Your task to perform on an android device: Go to internet settings Image 0: 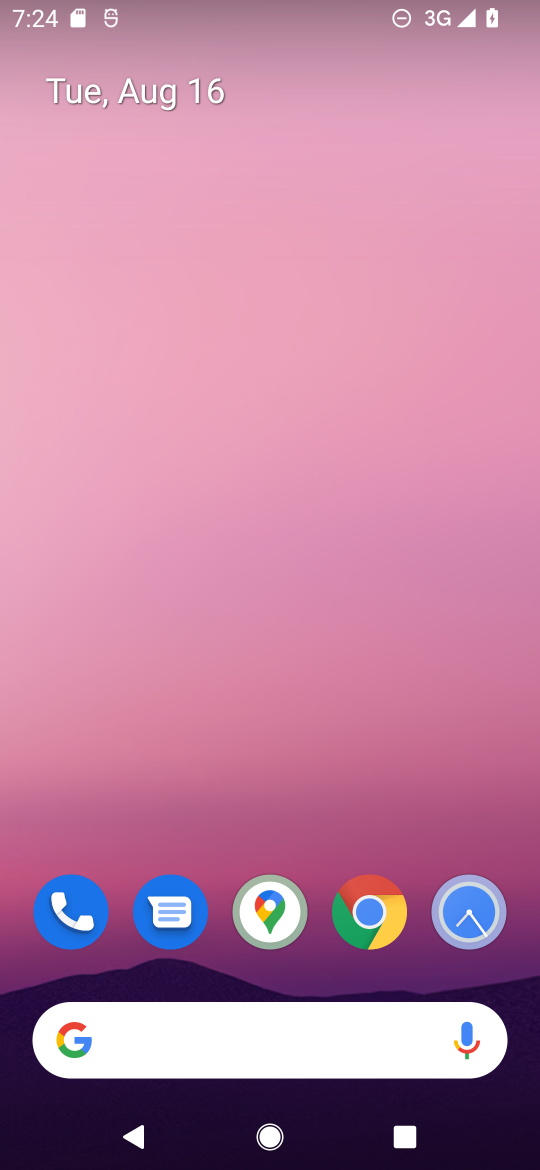
Step 0: drag from (422, 971) to (399, 251)
Your task to perform on an android device: Go to internet settings Image 1: 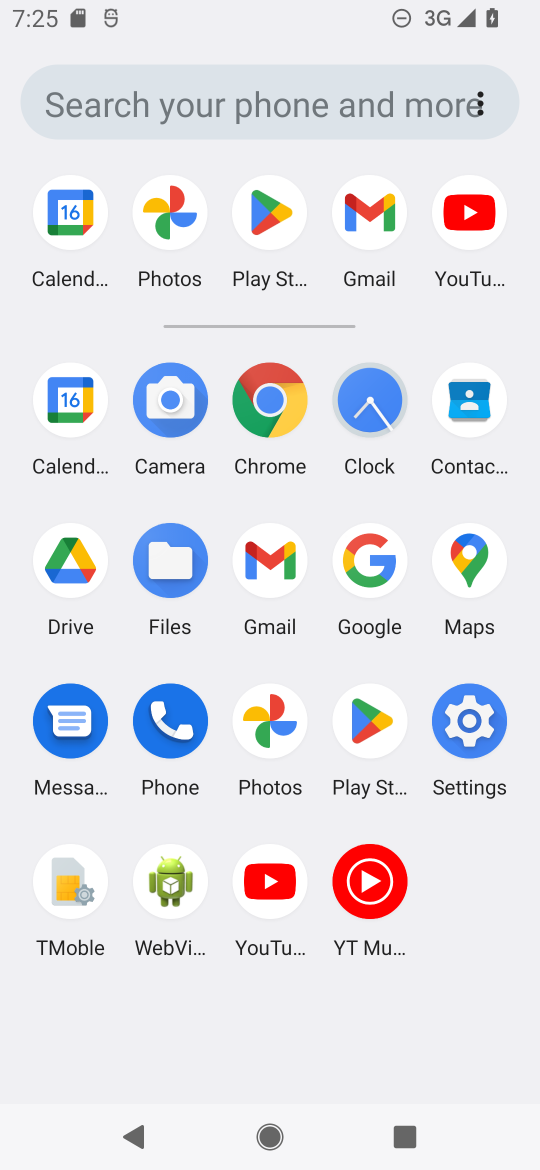
Step 1: click (465, 721)
Your task to perform on an android device: Go to internet settings Image 2: 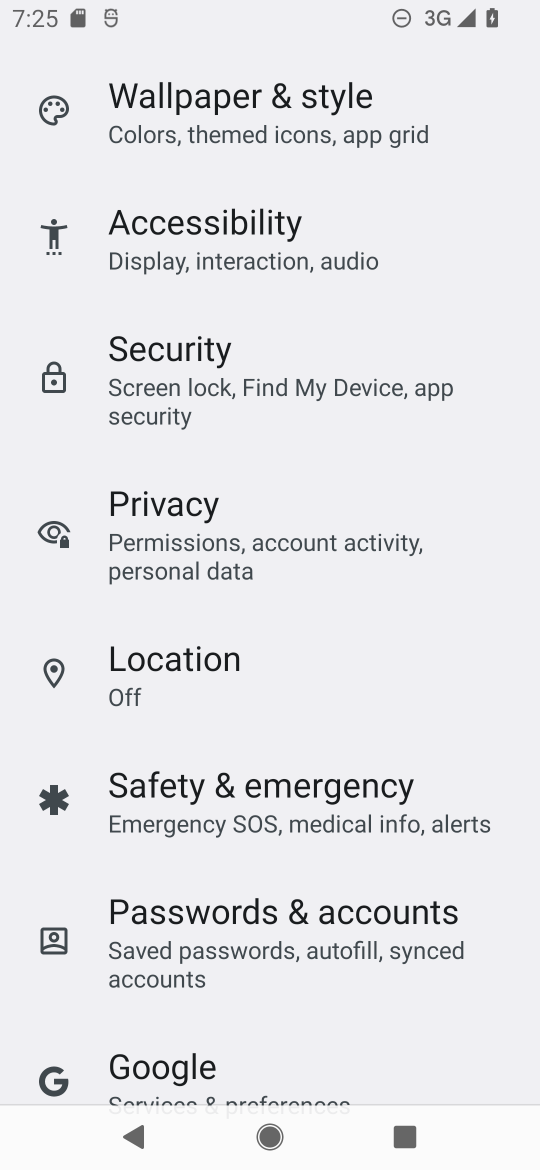
Step 2: drag from (393, 216) to (367, 819)
Your task to perform on an android device: Go to internet settings Image 3: 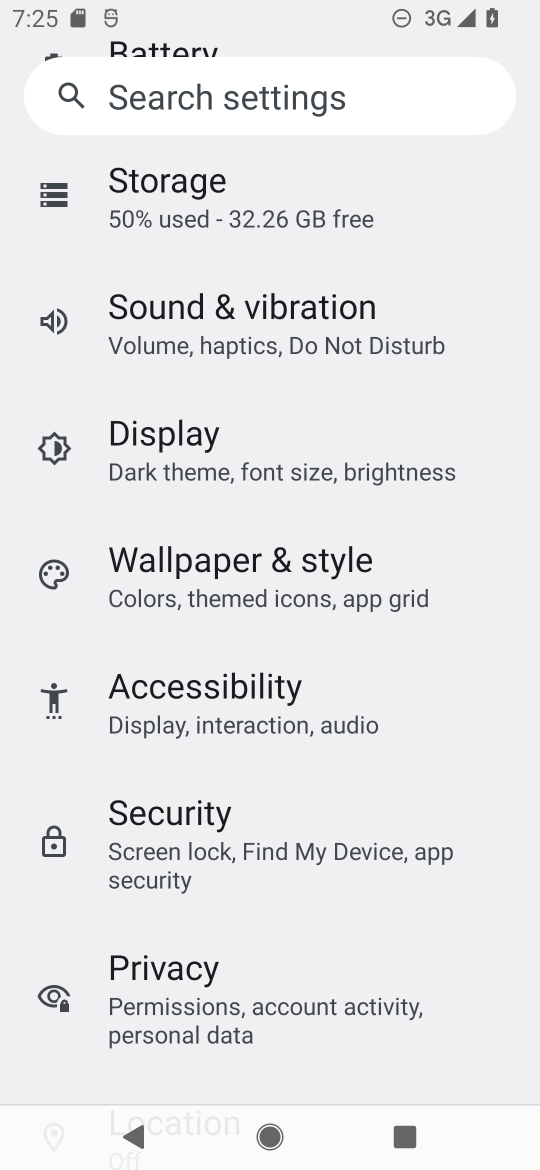
Step 3: drag from (428, 343) to (398, 879)
Your task to perform on an android device: Go to internet settings Image 4: 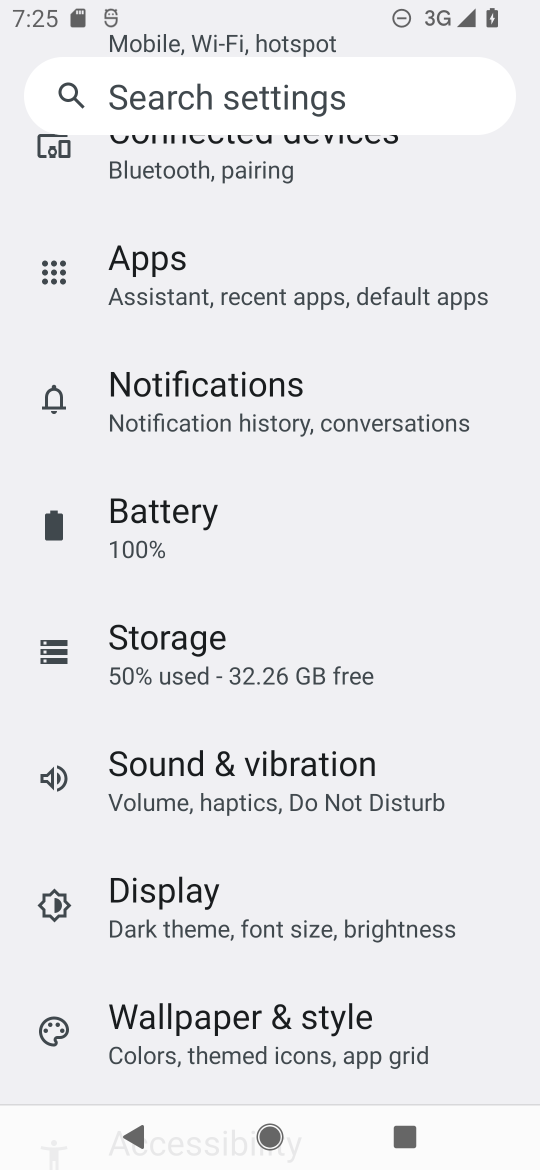
Step 4: drag from (440, 198) to (401, 767)
Your task to perform on an android device: Go to internet settings Image 5: 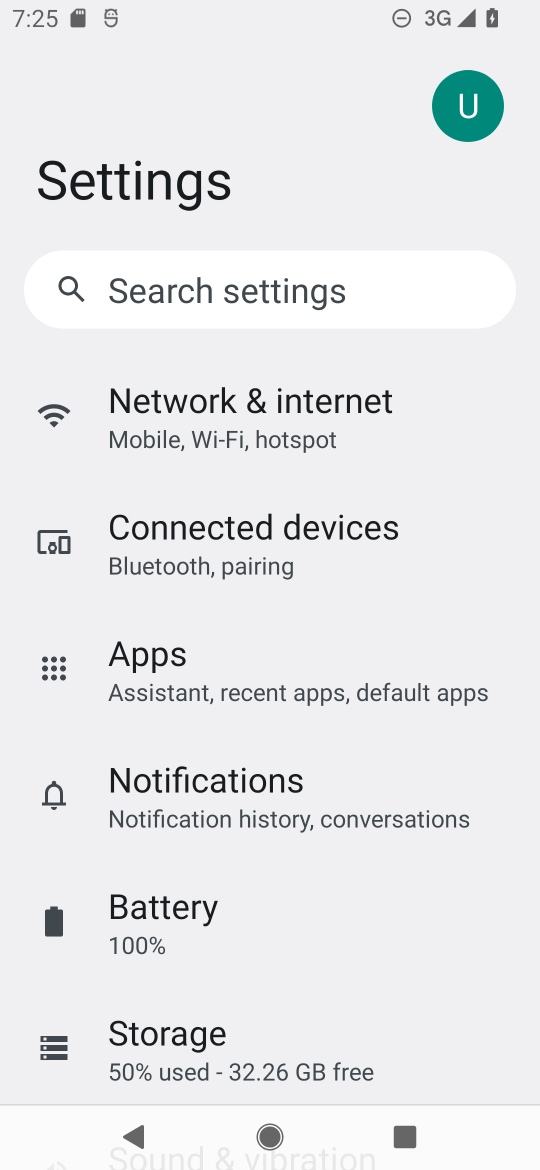
Step 5: click (170, 414)
Your task to perform on an android device: Go to internet settings Image 6: 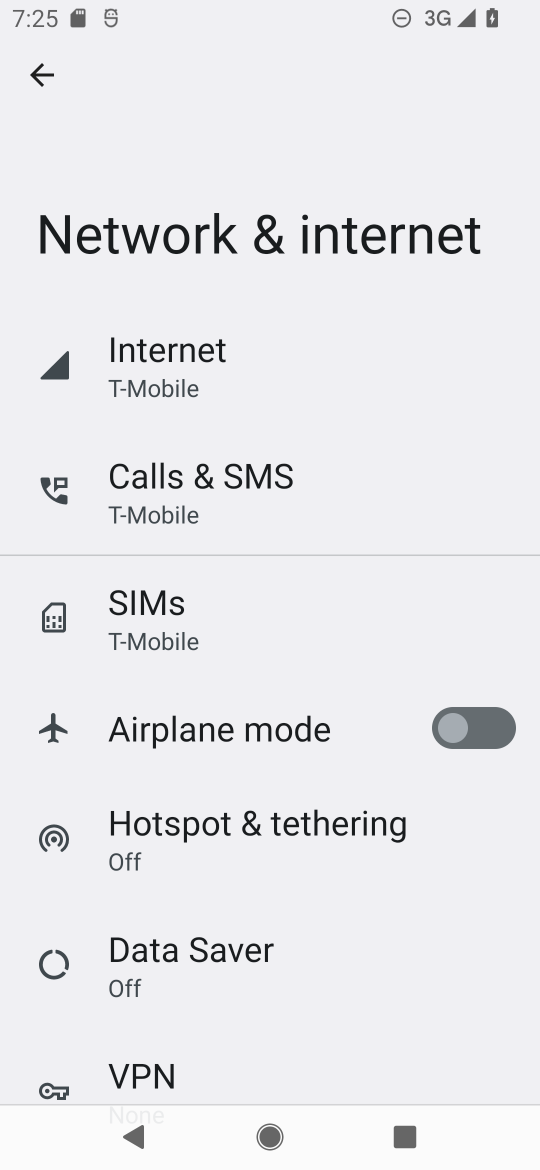
Step 6: click (179, 354)
Your task to perform on an android device: Go to internet settings Image 7: 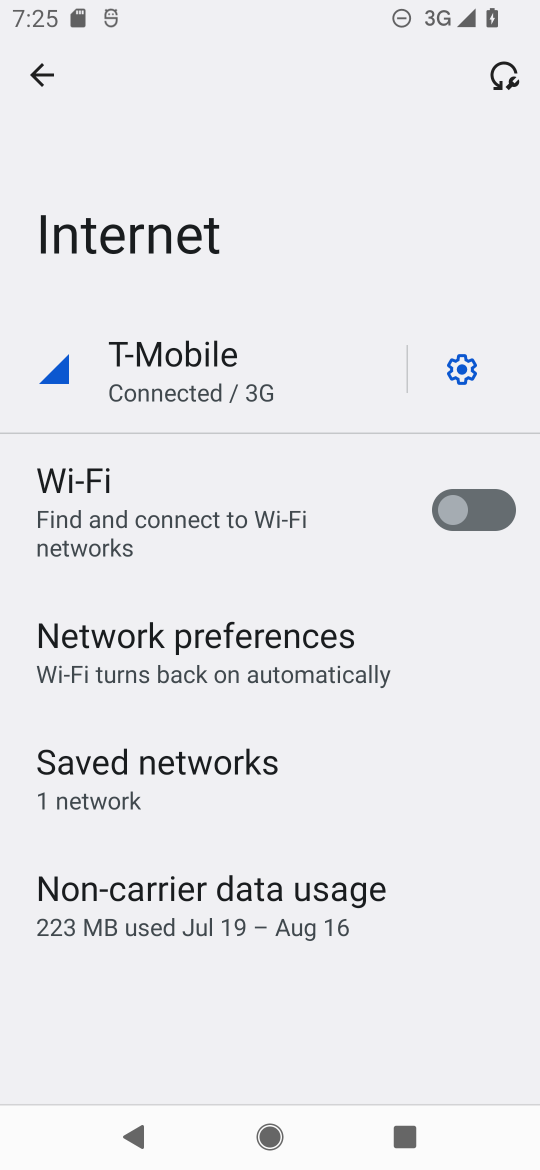
Step 7: click (458, 378)
Your task to perform on an android device: Go to internet settings Image 8: 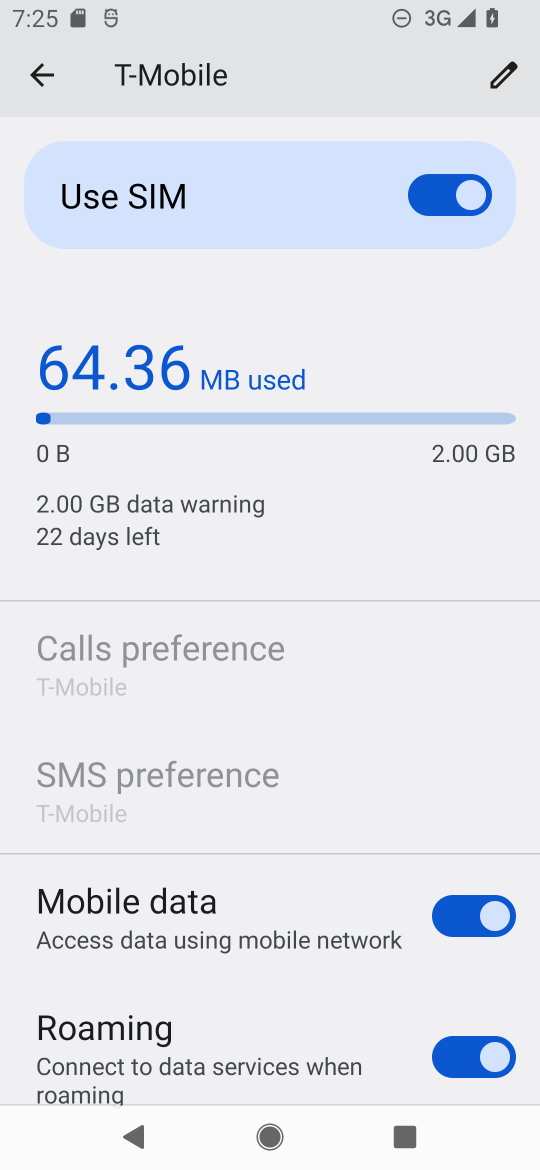
Step 8: task complete